Your task to perform on an android device: Open the Play Movies app and select the watchlist tab. Image 0: 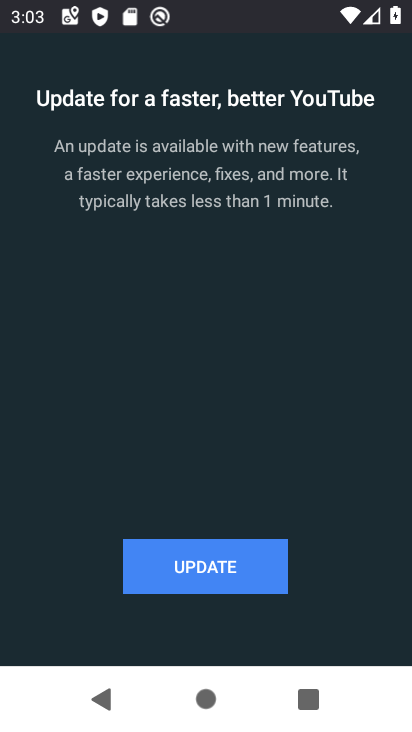
Step 0: press home button
Your task to perform on an android device: Open the Play Movies app and select the watchlist tab. Image 1: 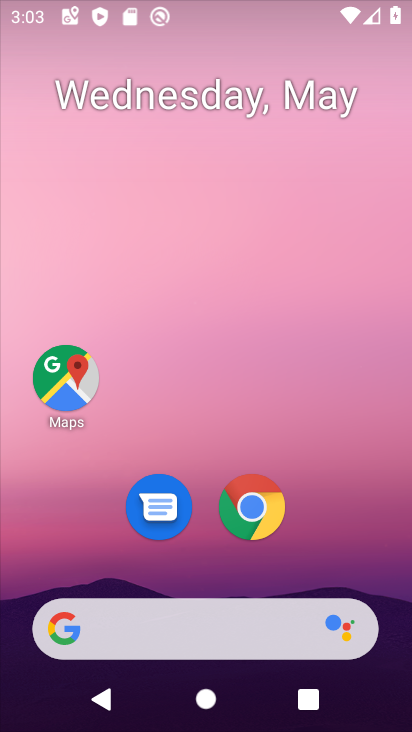
Step 1: drag from (252, 562) to (312, 8)
Your task to perform on an android device: Open the Play Movies app and select the watchlist tab. Image 2: 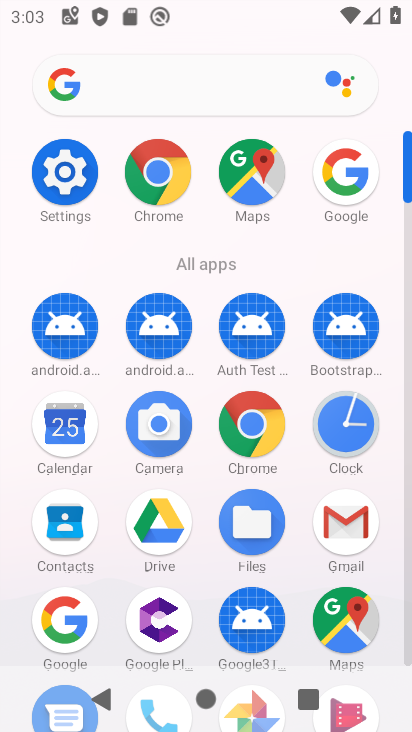
Step 2: drag from (315, 581) to (340, 167)
Your task to perform on an android device: Open the Play Movies app and select the watchlist tab. Image 3: 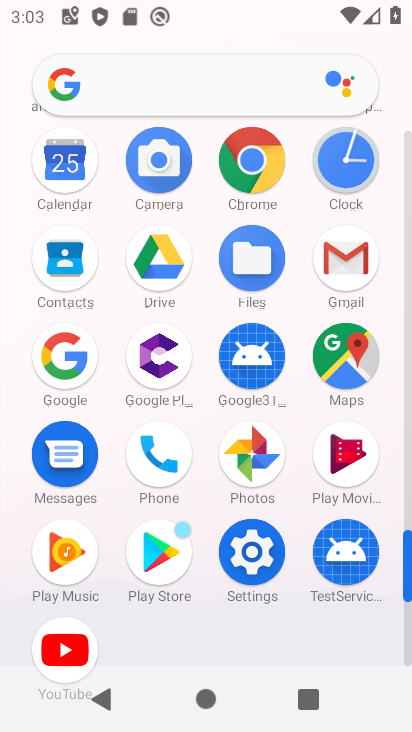
Step 3: click (343, 460)
Your task to perform on an android device: Open the Play Movies app and select the watchlist tab. Image 4: 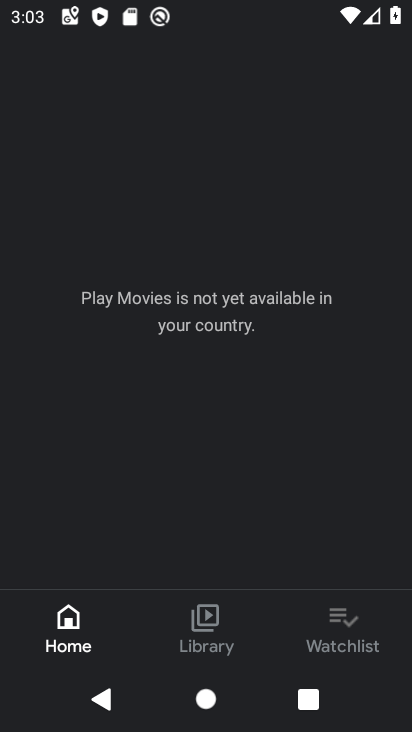
Step 4: click (340, 643)
Your task to perform on an android device: Open the Play Movies app and select the watchlist tab. Image 5: 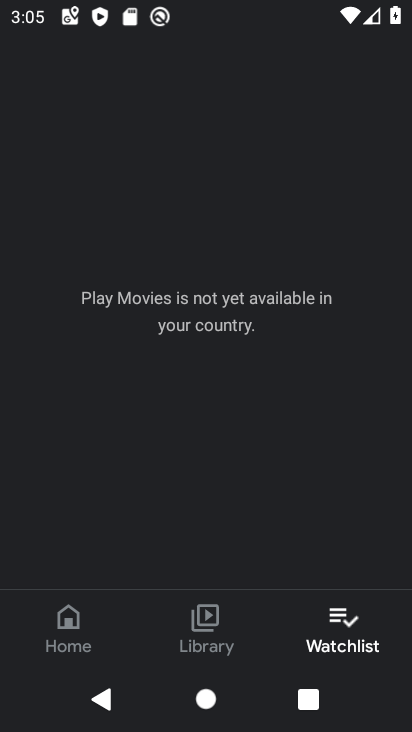
Step 5: task complete